Your task to perform on an android device: toggle wifi Image 0: 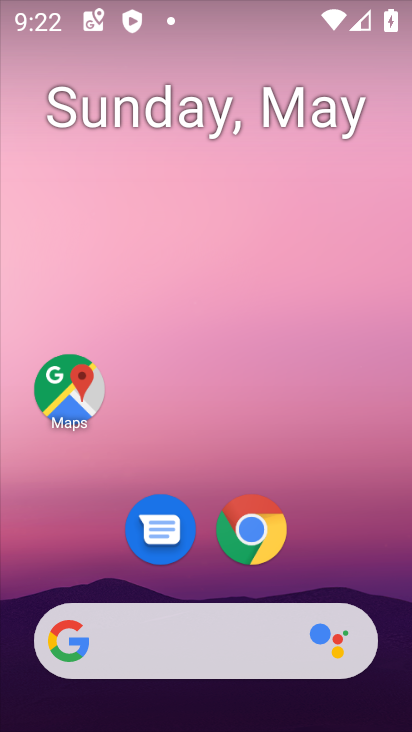
Step 0: drag from (363, 547) to (284, 24)
Your task to perform on an android device: toggle wifi Image 1: 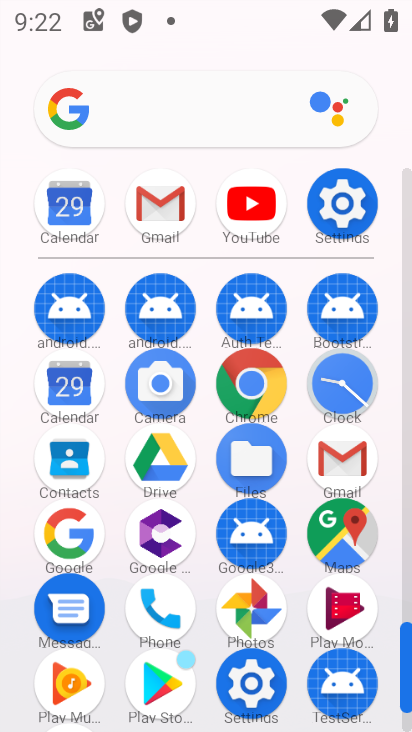
Step 1: click (340, 198)
Your task to perform on an android device: toggle wifi Image 2: 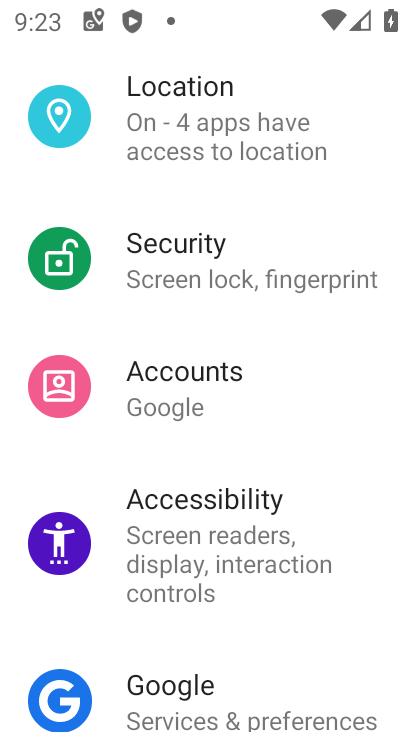
Step 2: drag from (303, 132) to (405, 554)
Your task to perform on an android device: toggle wifi Image 3: 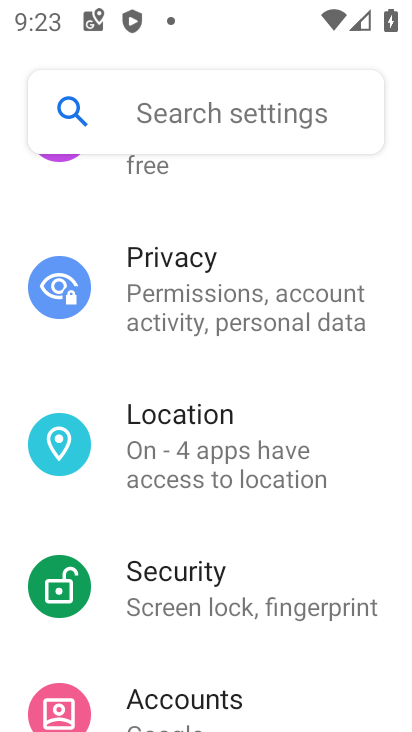
Step 3: drag from (213, 246) to (274, 667)
Your task to perform on an android device: toggle wifi Image 4: 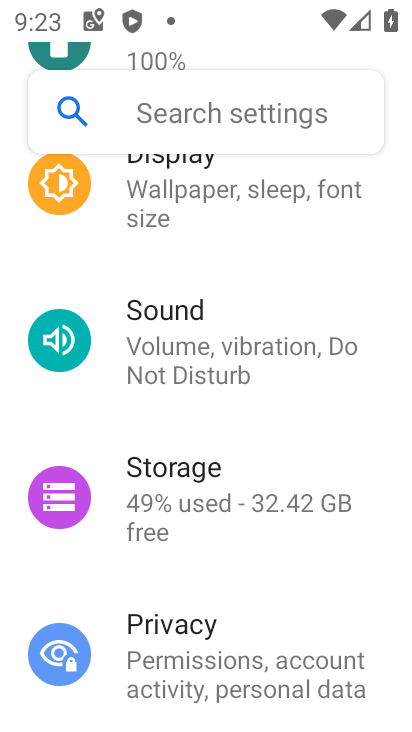
Step 4: drag from (214, 261) to (250, 715)
Your task to perform on an android device: toggle wifi Image 5: 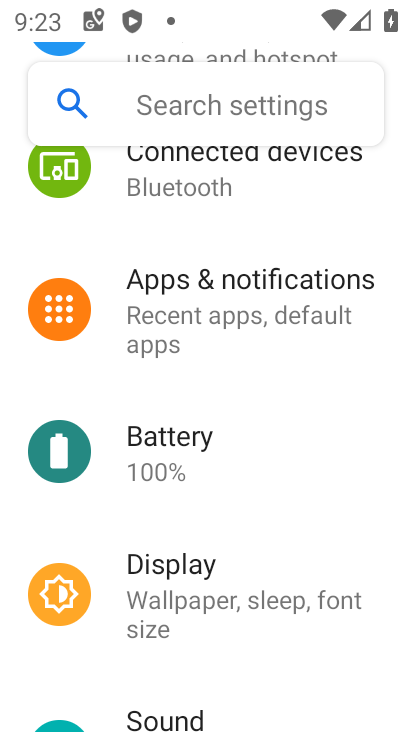
Step 5: drag from (254, 181) to (399, 698)
Your task to perform on an android device: toggle wifi Image 6: 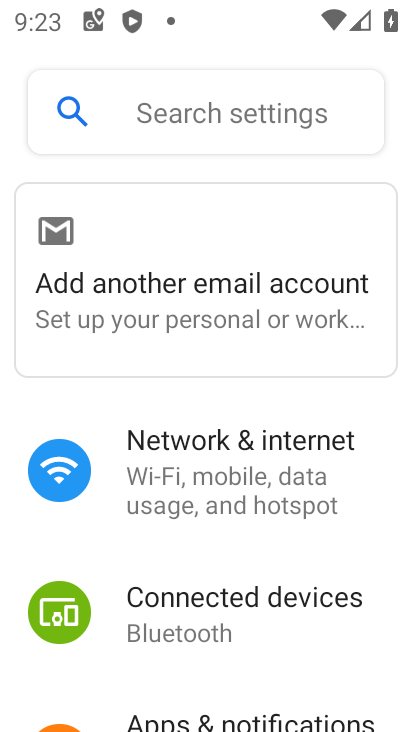
Step 6: click (213, 419)
Your task to perform on an android device: toggle wifi Image 7: 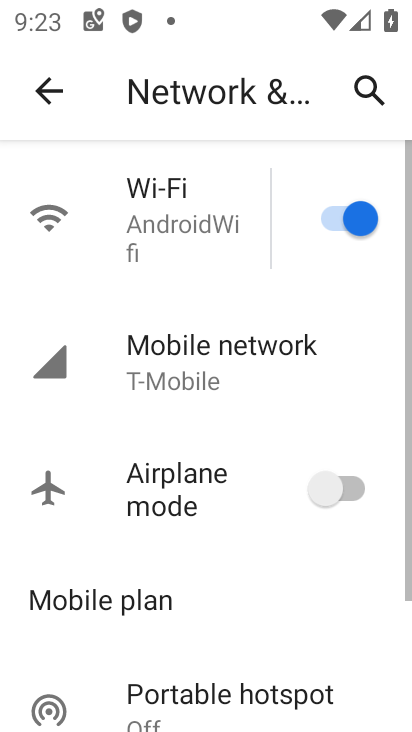
Step 7: task complete